Your task to perform on an android device: open wifi settings Image 0: 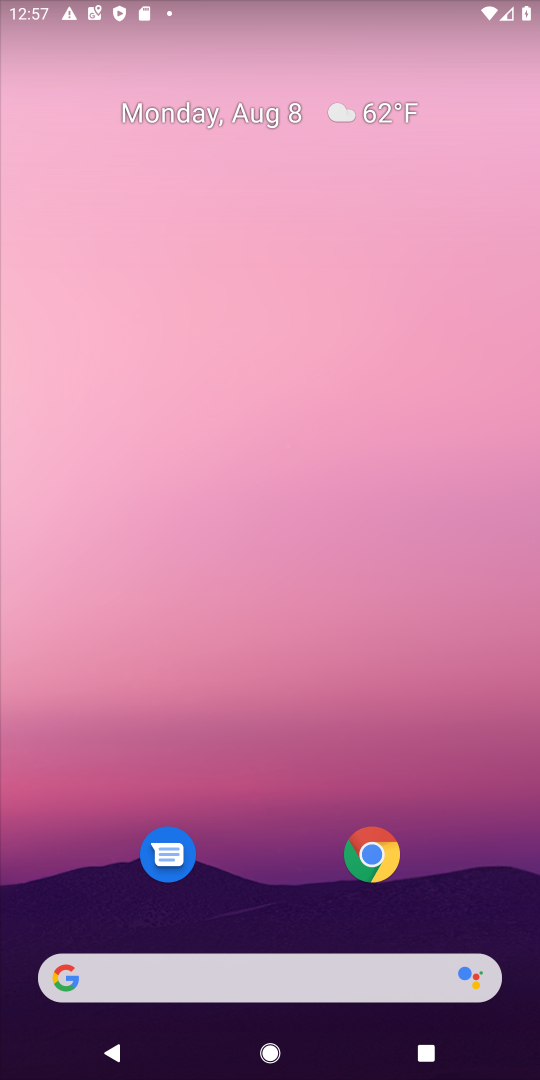
Step 0: press home button
Your task to perform on an android device: open wifi settings Image 1: 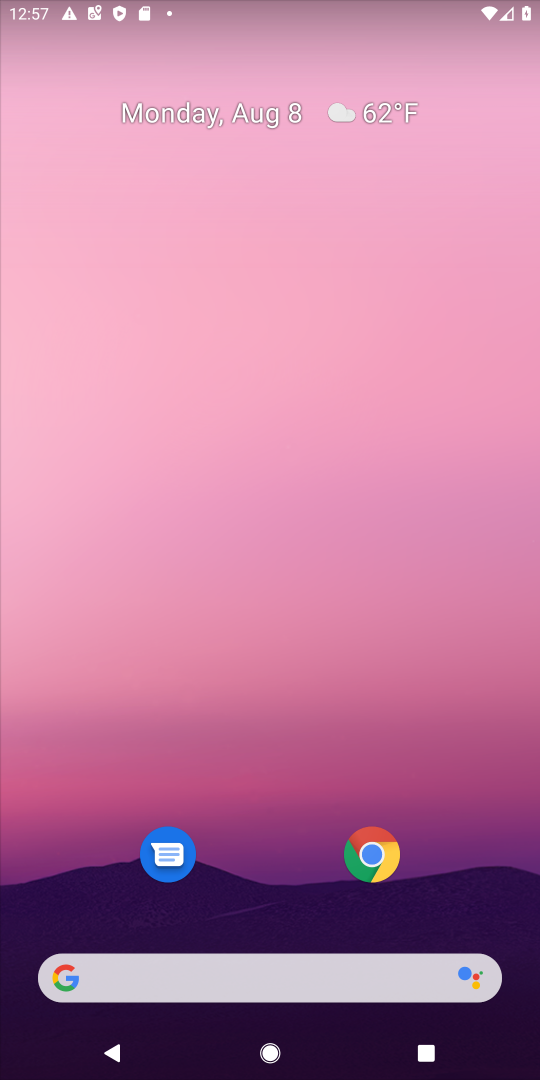
Step 1: drag from (276, 880) to (163, 128)
Your task to perform on an android device: open wifi settings Image 2: 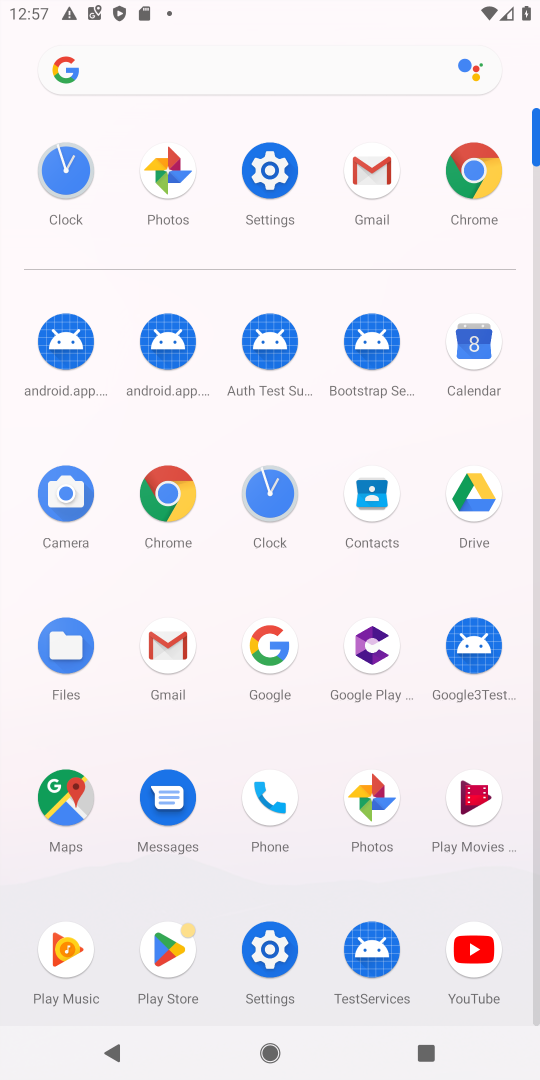
Step 2: click (267, 160)
Your task to perform on an android device: open wifi settings Image 3: 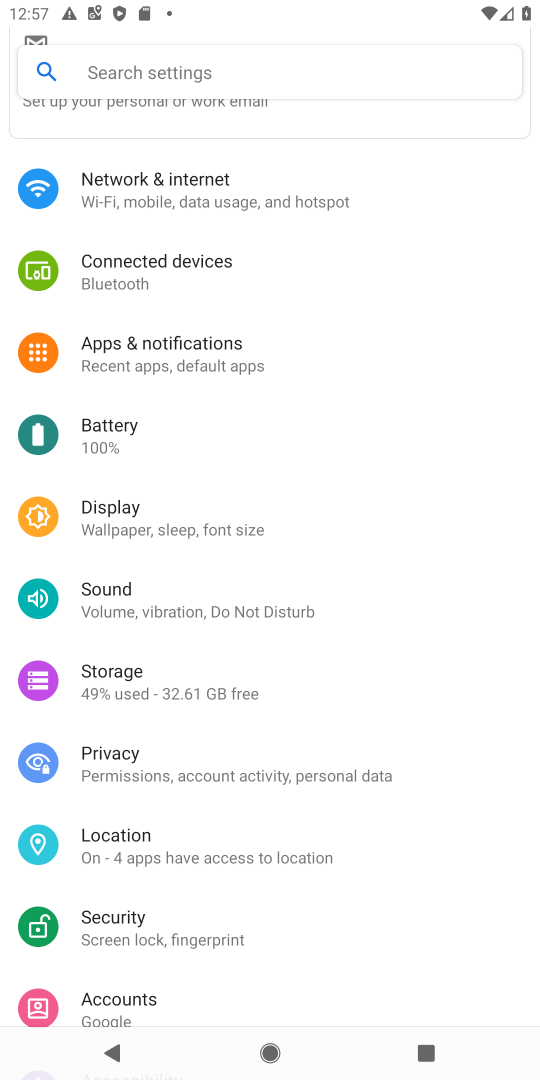
Step 3: click (202, 182)
Your task to perform on an android device: open wifi settings Image 4: 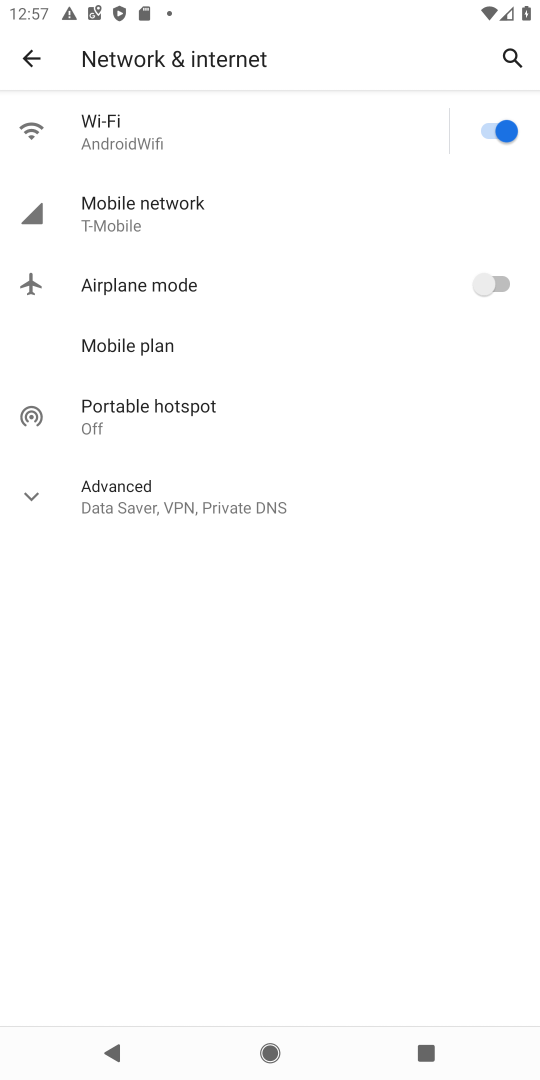
Step 4: task complete